Your task to perform on an android device: manage bookmarks in the chrome app Image 0: 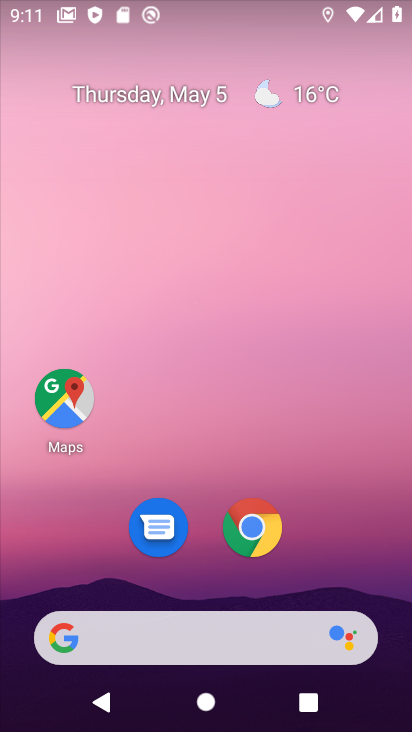
Step 0: click (259, 530)
Your task to perform on an android device: manage bookmarks in the chrome app Image 1: 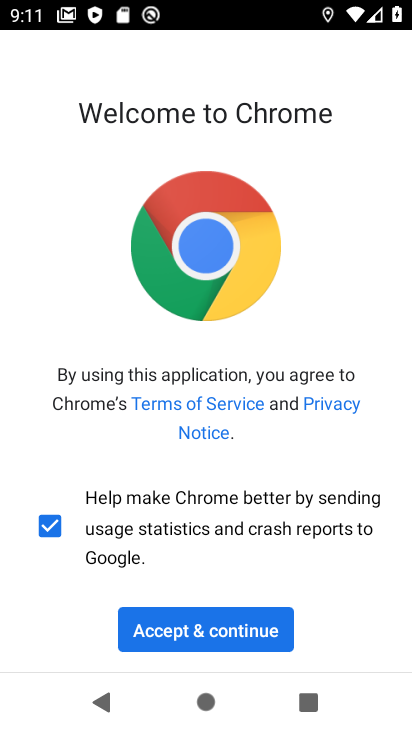
Step 1: click (233, 623)
Your task to perform on an android device: manage bookmarks in the chrome app Image 2: 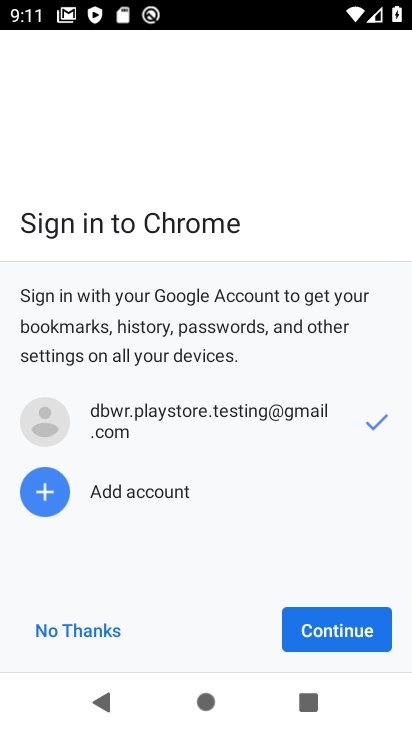
Step 2: click (357, 624)
Your task to perform on an android device: manage bookmarks in the chrome app Image 3: 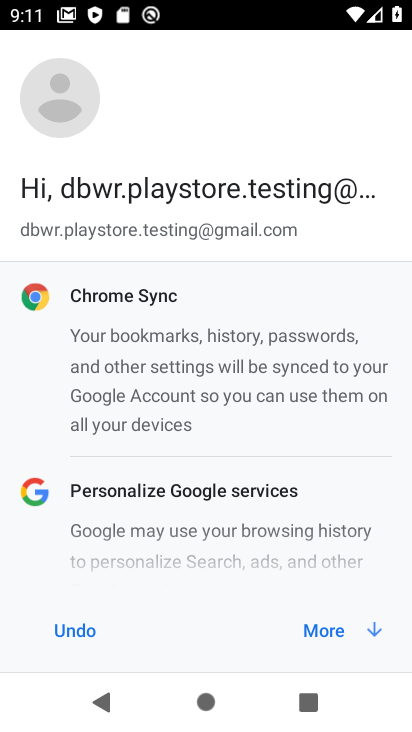
Step 3: click (356, 624)
Your task to perform on an android device: manage bookmarks in the chrome app Image 4: 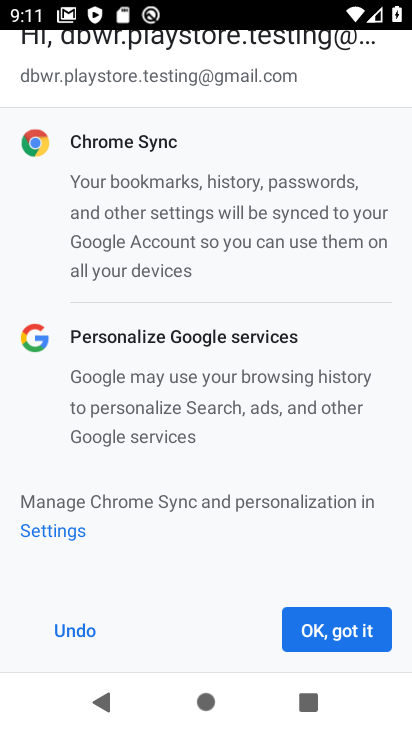
Step 4: click (356, 624)
Your task to perform on an android device: manage bookmarks in the chrome app Image 5: 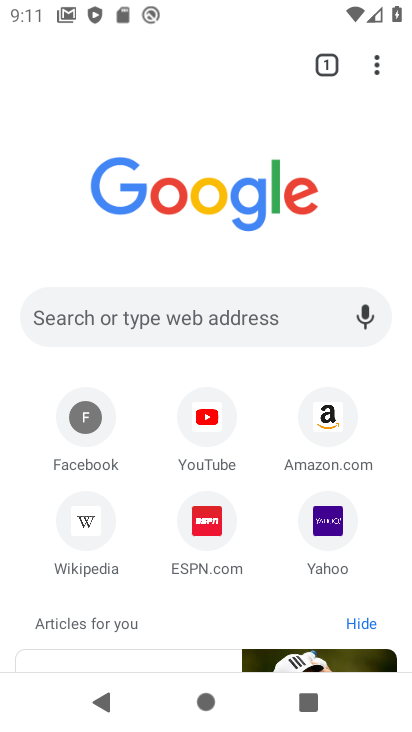
Step 5: drag from (368, 61) to (290, 232)
Your task to perform on an android device: manage bookmarks in the chrome app Image 6: 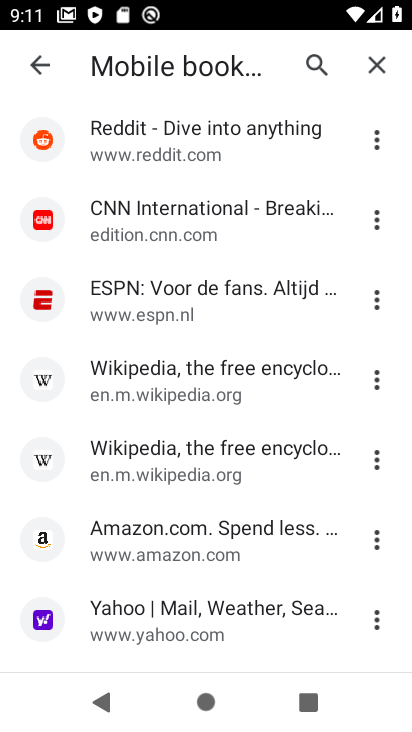
Step 6: drag from (191, 143) to (191, 229)
Your task to perform on an android device: manage bookmarks in the chrome app Image 7: 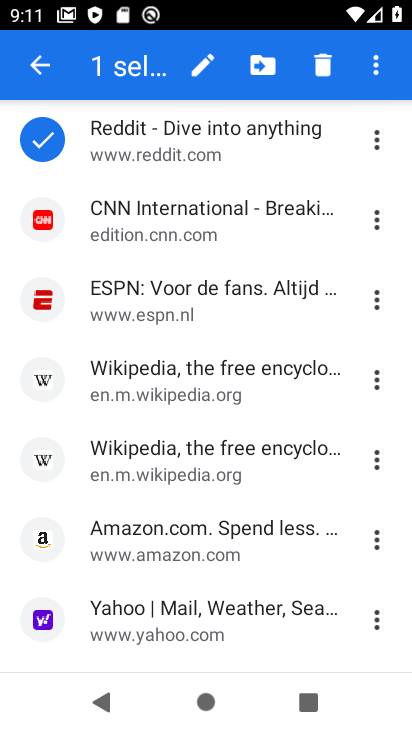
Step 7: click (191, 229)
Your task to perform on an android device: manage bookmarks in the chrome app Image 8: 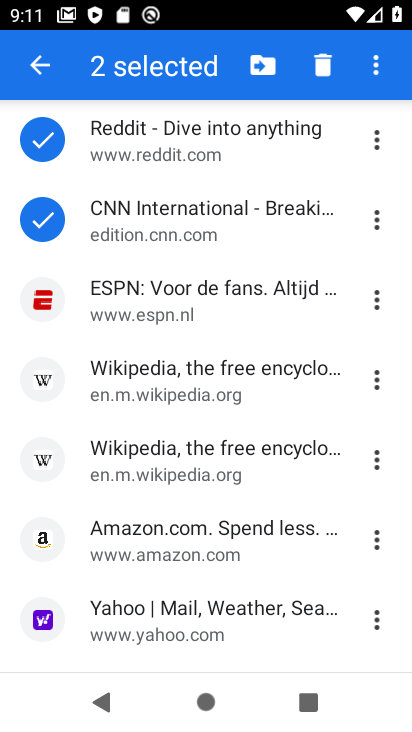
Step 8: click (208, 323)
Your task to perform on an android device: manage bookmarks in the chrome app Image 9: 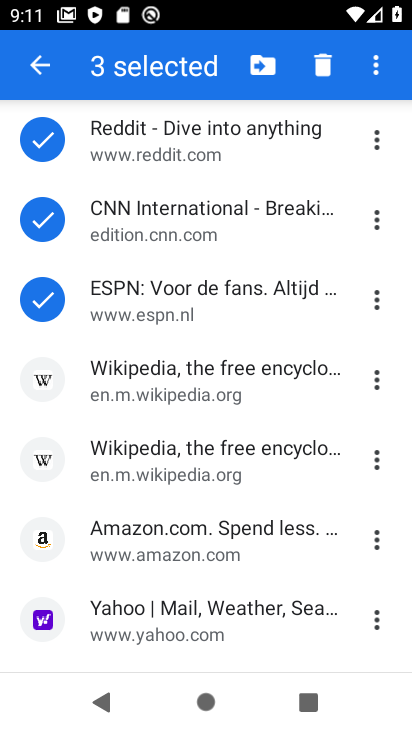
Step 9: click (191, 394)
Your task to perform on an android device: manage bookmarks in the chrome app Image 10: 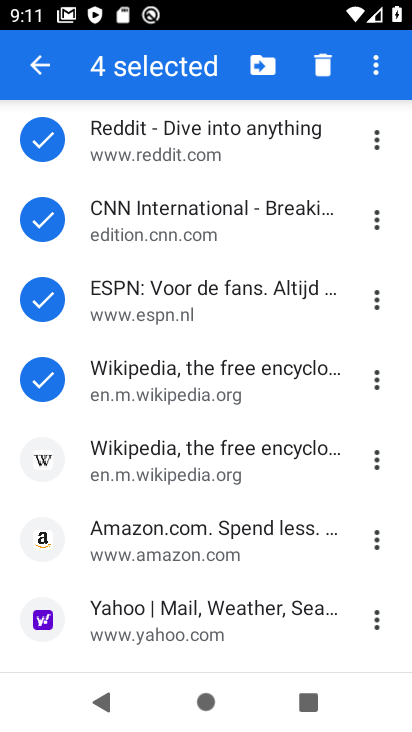
Step 10: click (194, 458)
Your task to perform on an android device: manage bookmarks in the chrome app Image 11: 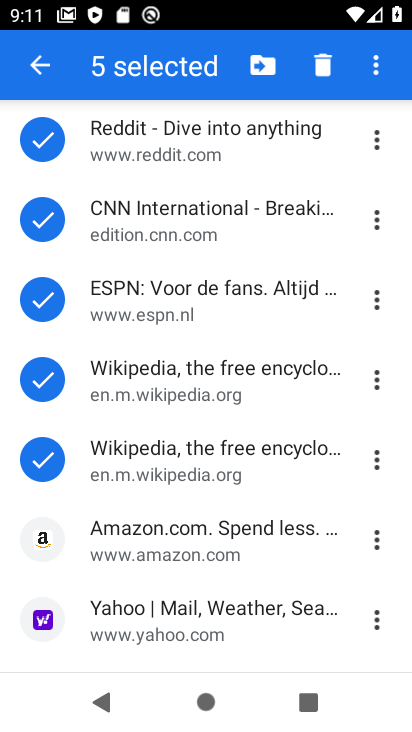
Step 11: click (179, 554)
Your task to perform on an android device: manage bookmarks in the chrome app Image 12: 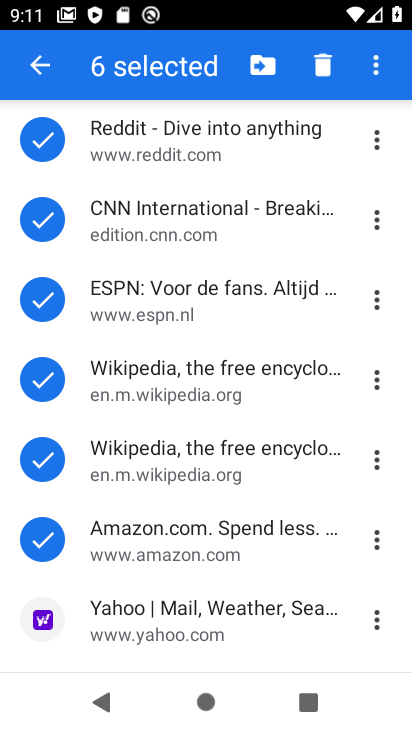
Step 12: click (171, 620)
Your task to perform on an android device: manage bookmarks in the chrome app Image 13: 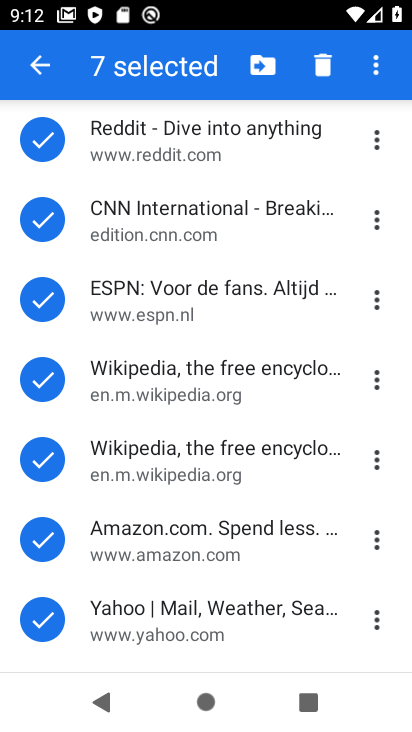
Step 13: drag from (145, 633) to (212, 269)
Your task to perform on an android device: manage bookmarks in the chrome app Image 14: 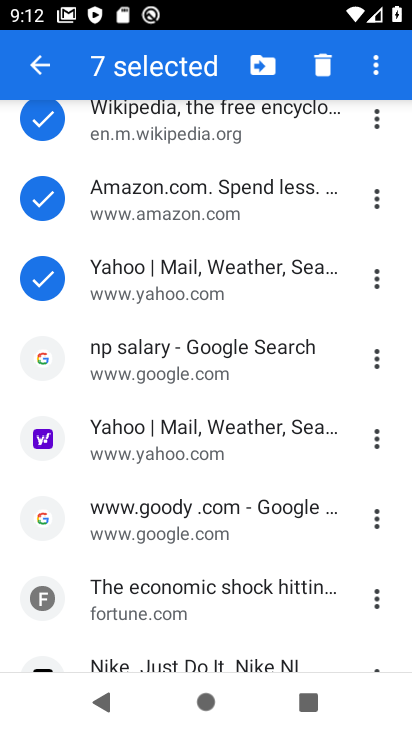
Step 14: click (155, 355)
Your task to perform on an android device: manage bookmarks in the chrome app Image 15: 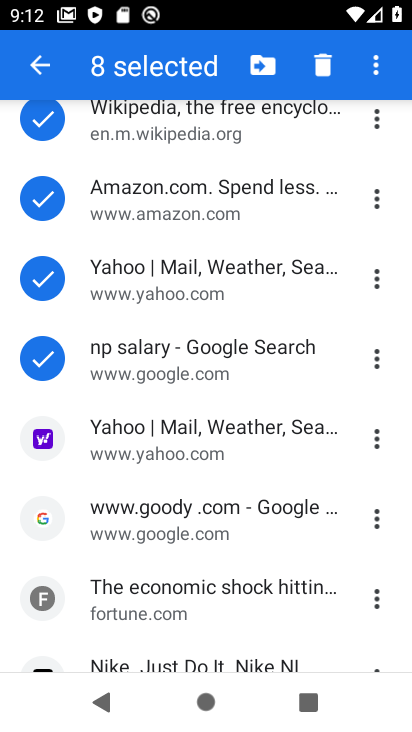
Step 15: click (159, 448)
Your task to perform on an android device: manage bookmarks in the chrome app Image 16: 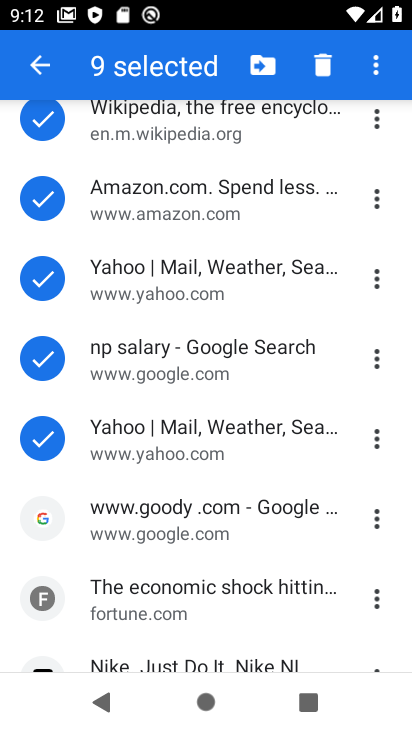
Step 16: click (155, 514)
Your task to perform on an android device: manage bookmarks in the chrome app Image 17: 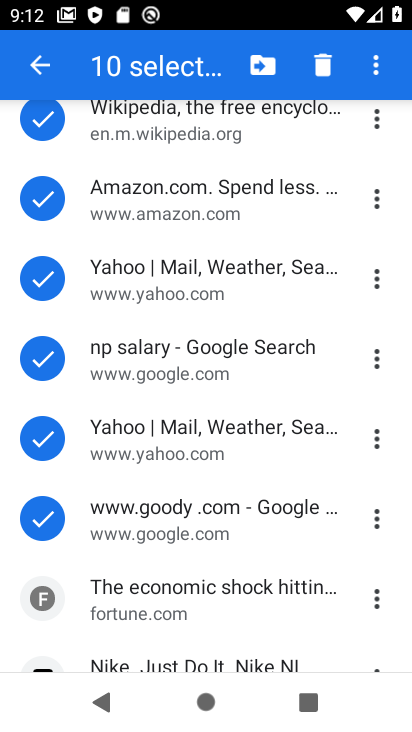
Step 17: click (144, 600)
Your task to perform on an android device: manage bookmarks in the chrome app Image 18: 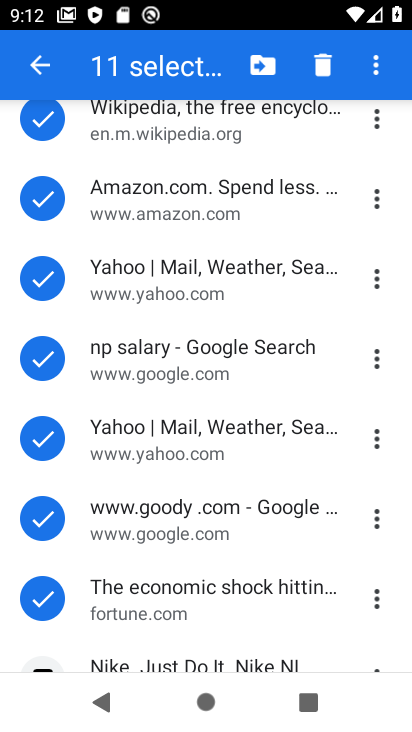
Step 18: drag from (128, 637) to (230, 129)
Your task to perform on an android device: manage bookmarks in the chrome app Image 19: 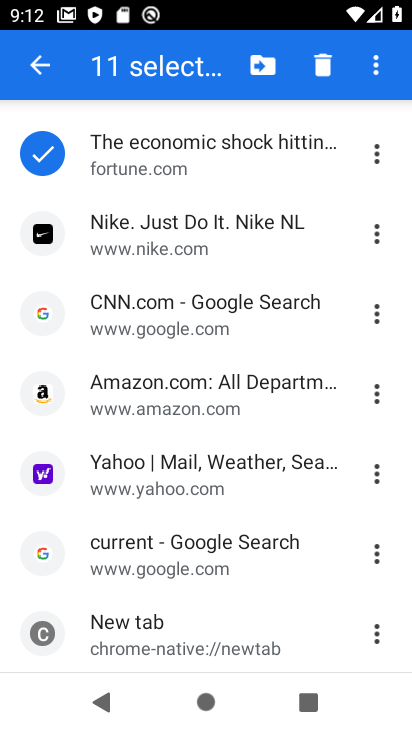
Step 19: click (152, 221)
Your task to perform on an android device: manage bookmarks in the chrome app Image 20: 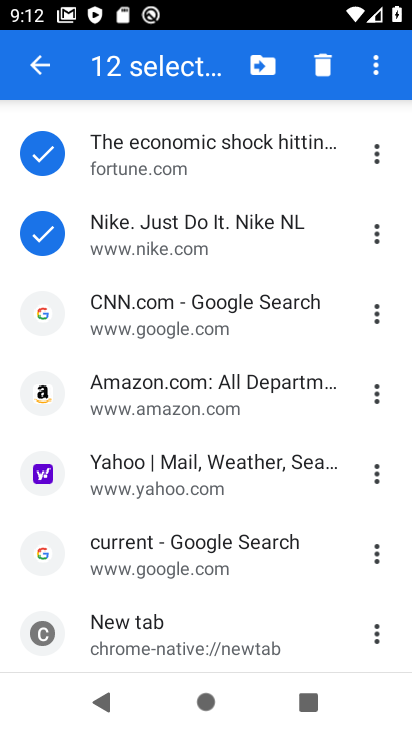
Step 20: click (165, 298)
Your task to perform on an android device: manage bookmarks in the chrome app Image 21: 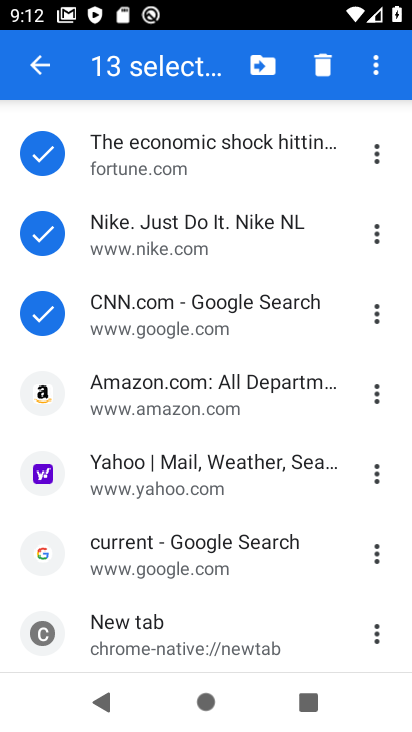
Step 21: click (167, 385)
Your task to perform on an android device: manage bookmarks in the chrome app Image 22: 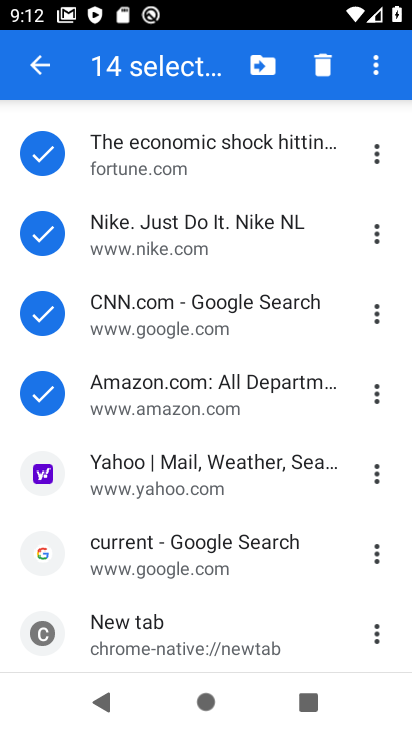
Step 22: click (169, 486)
Your task to perform on an android device: manage bookmarks in the chrome app Image 23: 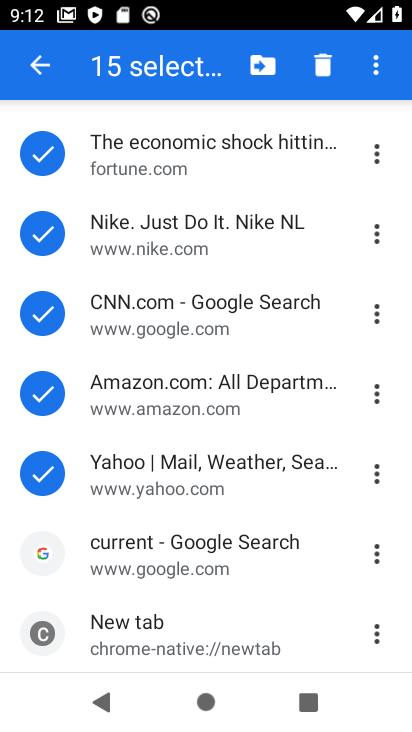
Step 23: click (149, 551)
Your task to perform on an android device: manage bookmarks in the chrome app Image 24: 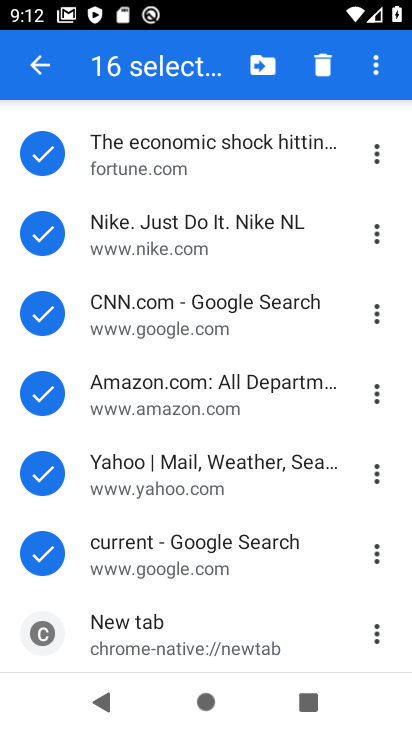
Step 24: click (127, 626)
Your task to perform on an android device: manage bookmarks in the chrome app Image 25: 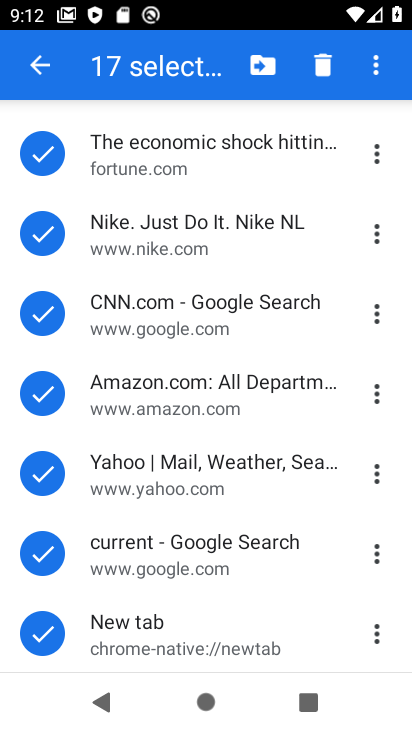
Step 25: drag from (131, 633) to (220, 60)
Your task to perform on an android device: manage bookmarks in the chrome app Image 26: 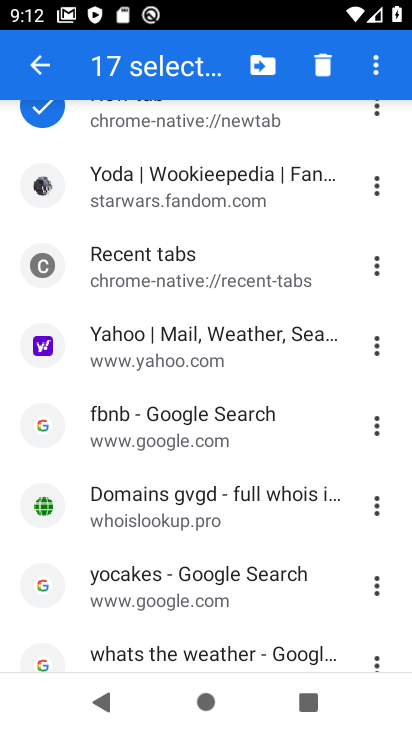
Step 26: click (184, 185)
Your task to perform on an android device: manage bookmarks in the chrome app Image 27: 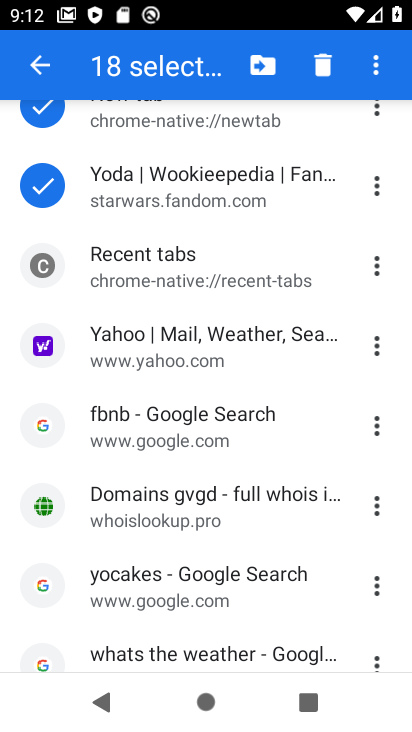
Step 27: click (173, 248)
Your task to perform on an android device: manage bookmarks in the chrome app Image 28: 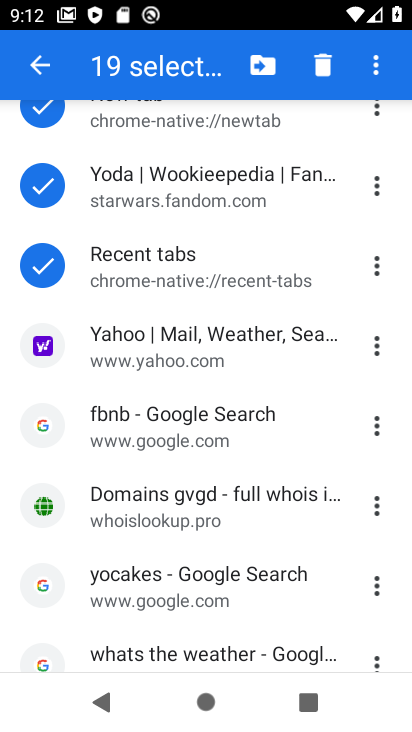
Step 28: click (140, 335)
Your task to perform on an android device: manage bookmarks in the chrome app Image 29: 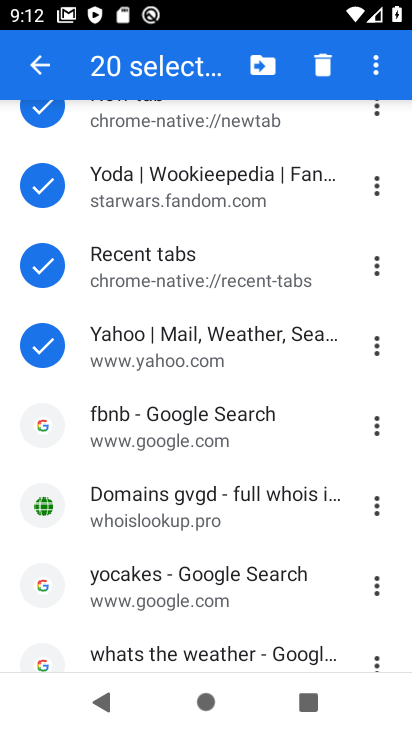
Step 29: click (149, 420)
Your task to perform on an android device: manage bookmarks in the chrome app Image 30: 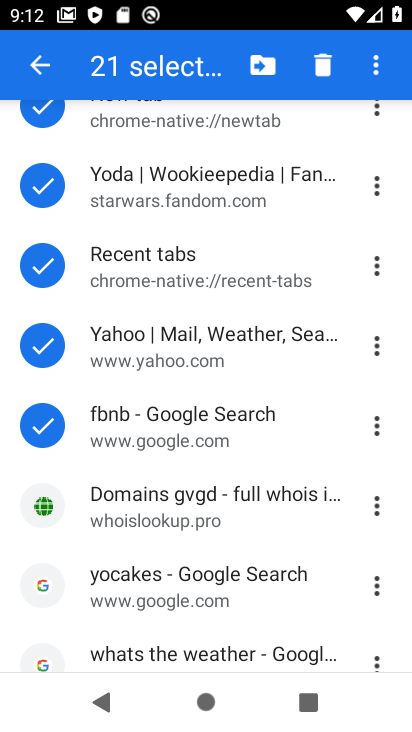
Step 30: click (169, 491)
Your task to perform on an android device: manage bookmarks in the chrome app Image 31: 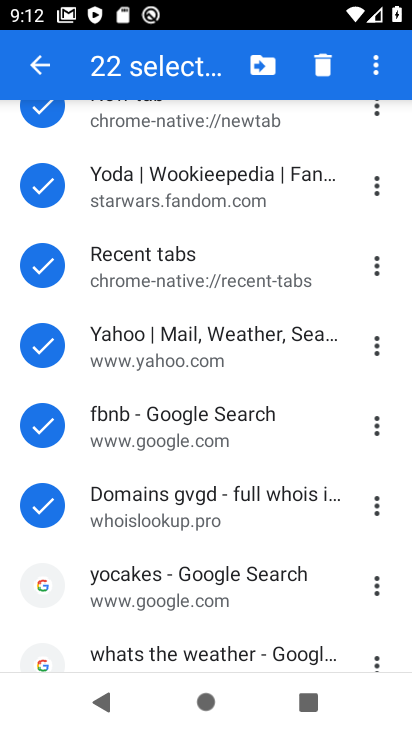
Step 31: click (140, 572)
Your task to perform on an android device: manage bookmarks in the chrome app Image 32: 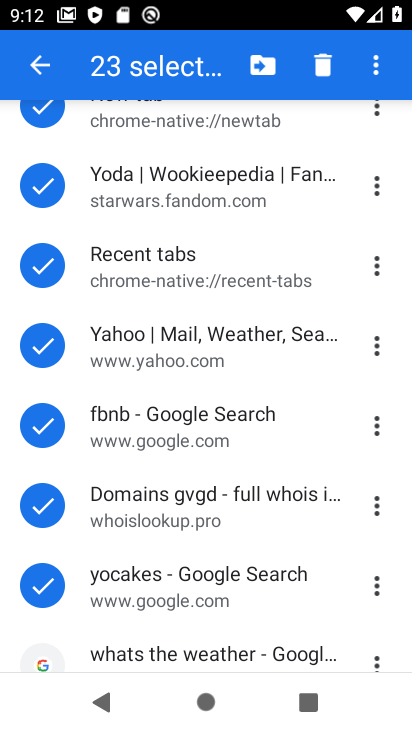
Step 32: click (104, 667)
Your task to perform on an android device: manage bookmarks in the chrome app Image 33: 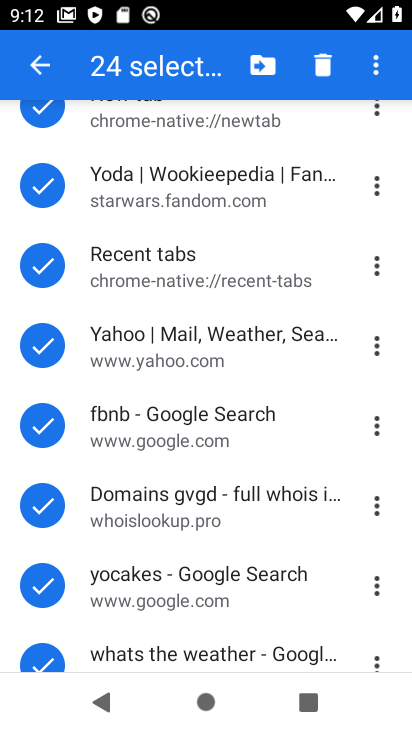
Step 33: drag from (136, 646) to (216, 5)
Your task to perform on an android device: manage bookmarks in the chrome app Image 34: 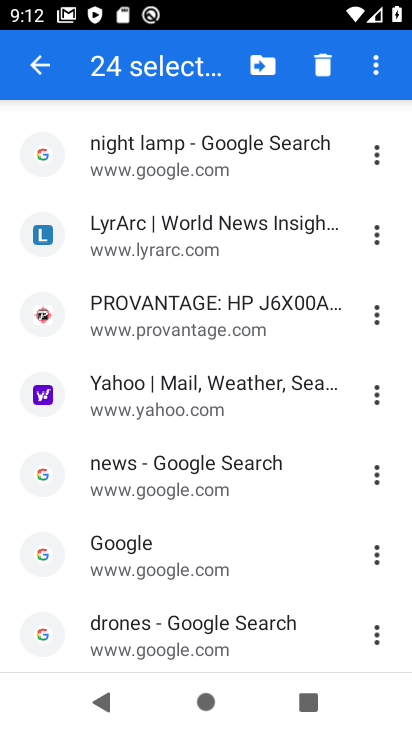
Step 34: click (183, 149)
Your task to perform on an android device: manage bookmarks in the chrome app Image 35: 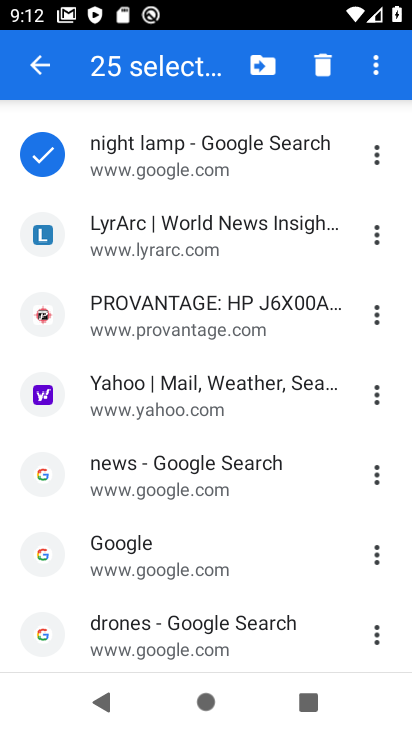
Step 35: click (157, 223)
Your task to perform on an android device: manage bookmarks in the chrome app Image 36: 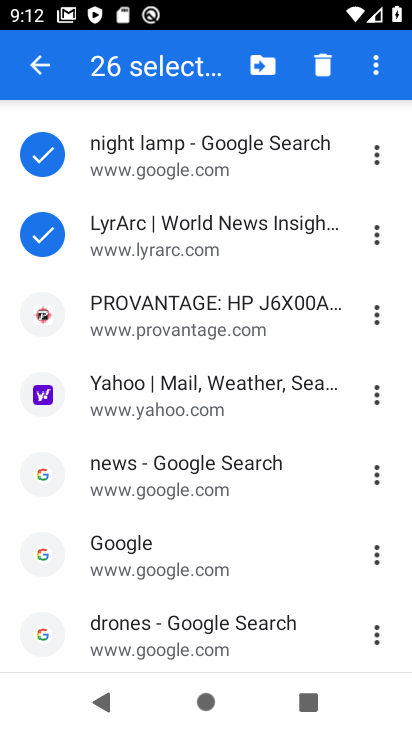
Step 36: click (163, 305)
Your task to perform on an android device: manage bookmarks in the chrome app Image 37: 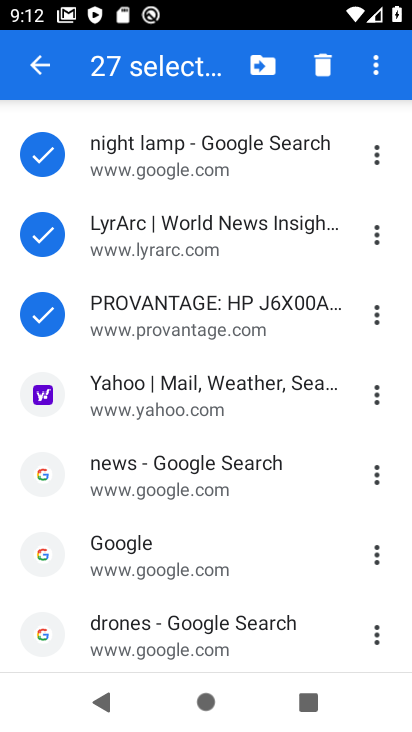
Step 37: click (155, 403)
Your task to perform on an android device: manage bookmarks in the chrome app Image 38: 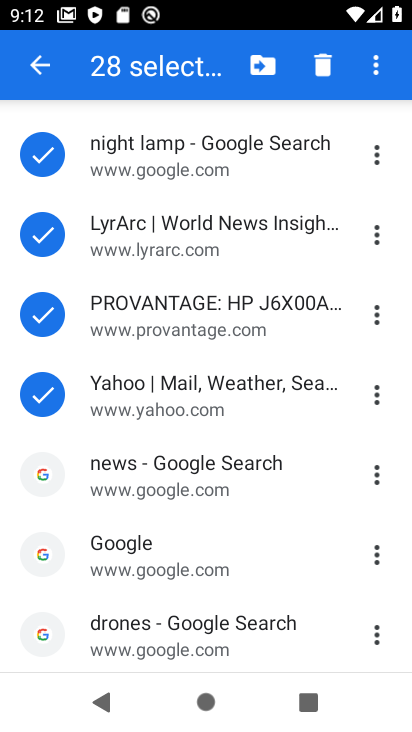
Step 38: drag from (152, 435) to (173, 366)
Your task to perform on an android device: manage bookmarks in the chrome app Image 39: 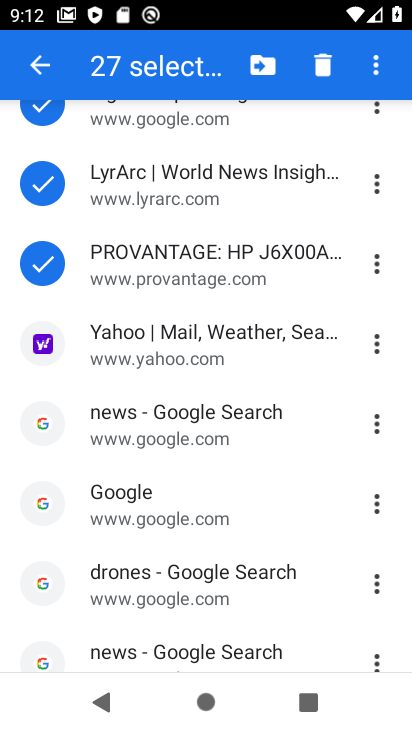
Step 39: click (171, 335)
Your task to perform on an android device: manage bookmarks in the chrome app Image 40: 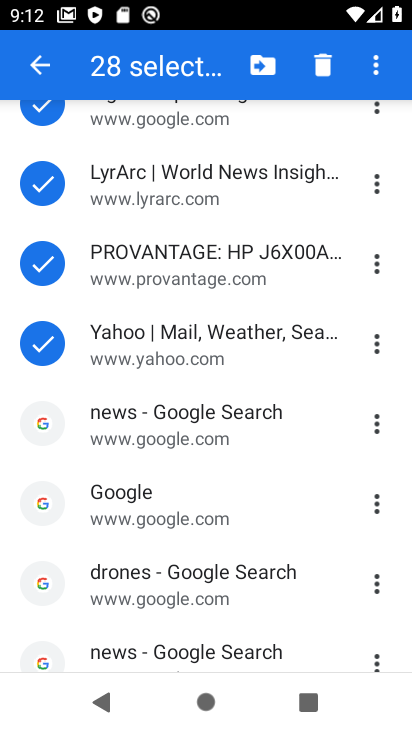
Step 40: click (146, 423)
Your task to perform on an android device: manage bookmarks in the chrome app Image 41: 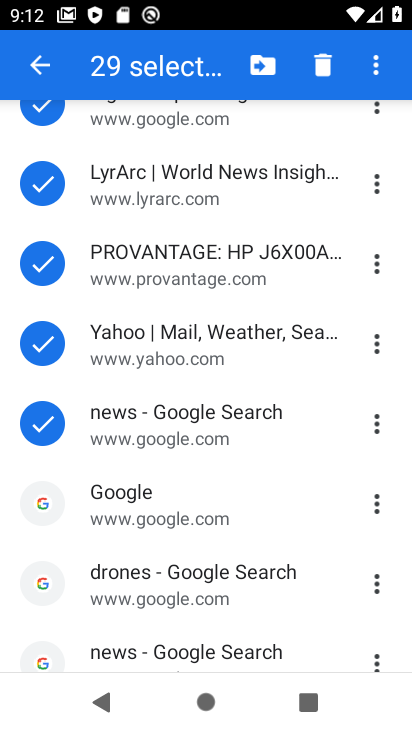
Step 41: click (138, 499)
Your task to perform on an android device: manage bookmarks in the chrome app Image 42: 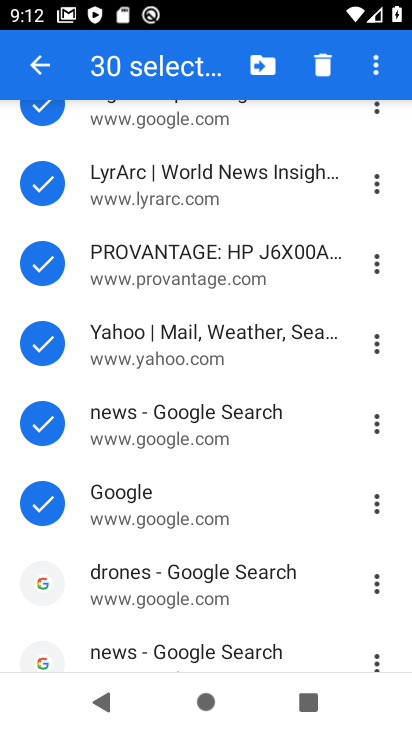
Step 42: drag from (154, 522) to (247, 11)
Your task to perform on an android device: manage bookmarks in the chrome app Image 43: 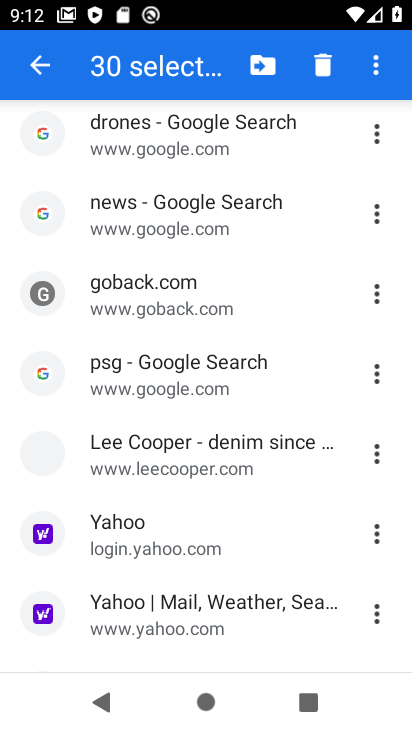
Step 43: drag from (164, 571) to (271, 46)
Your task to perform on an android device: manage bookmarks in the chrome app Image 44: 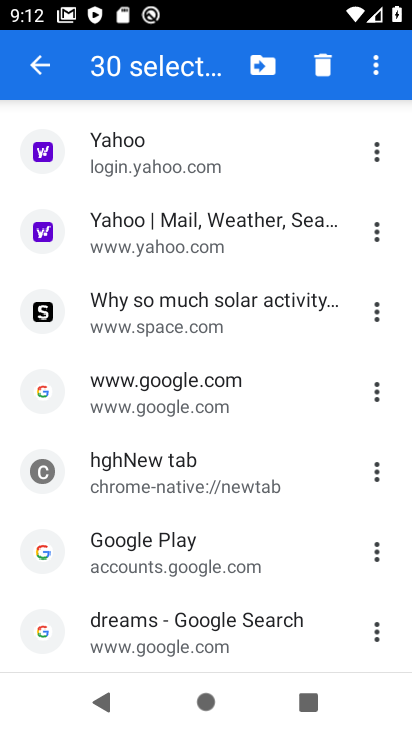
Step 44: drag from (194, 645) to (254, 47)
Your task to perform on an android device: manage bookmarks in the chrome app Image 45: 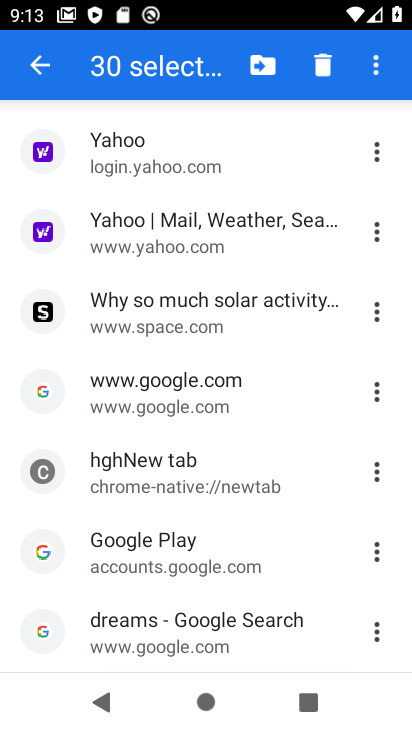
Step 45: click (183, 608)
Your task to perform on an android device: manage bookmarks in the chrome app Image 46: 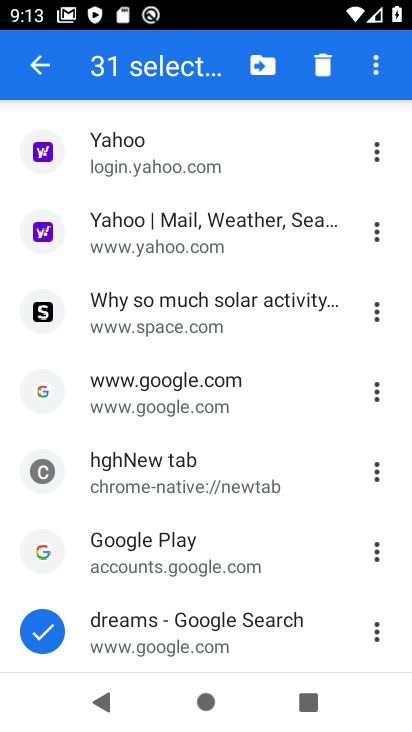
Step 46: drag from (182, 590) to (189, 553)
Your task to perform on an android device: manage bookmarks in the chrome app Image 47: 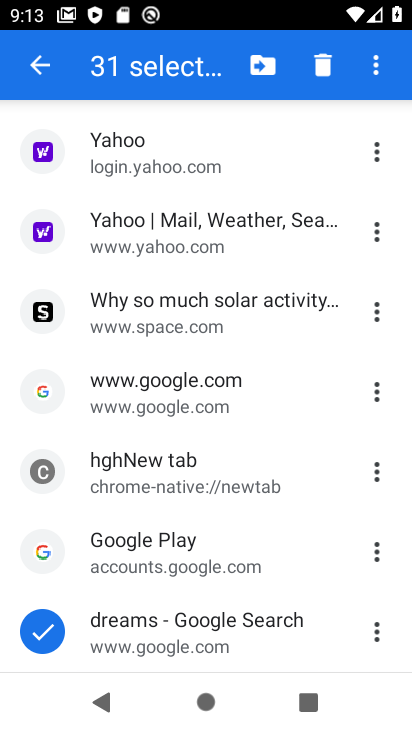
Step 47: click (184, 539)
Your task to perform on an android device: manage bookmarks in the chrome app Image 48: 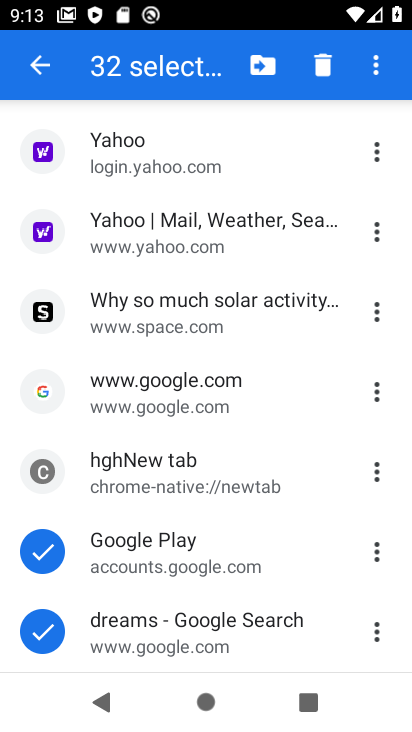
Step 48: click (163, 464)
Your task to perform on an android device: manage bookmarks in the chrome app Image 49: 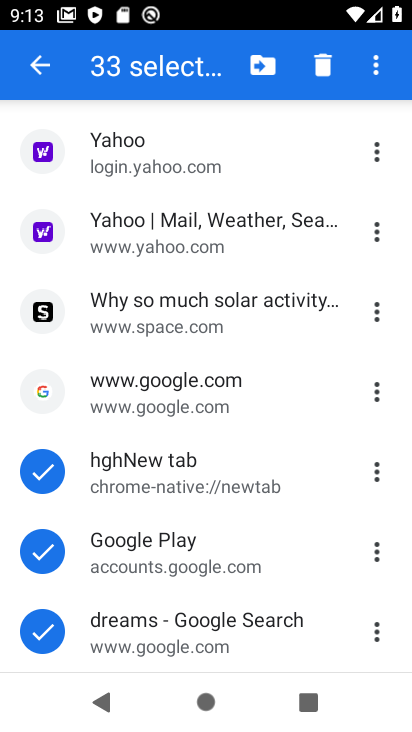
Step 49: click (164, 405)
Your task to perform on an android device: manage bookmarks in the chrome app Image 50: 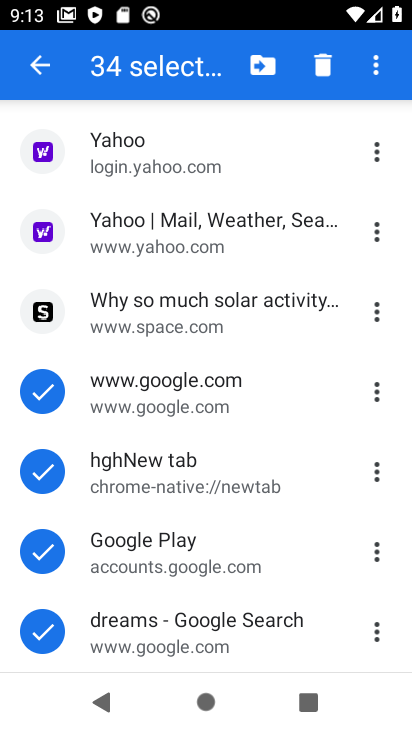
Step 50: click (154, 307)
Your task to perform on an android device: manage bookmarks in the chrome app Image 51: 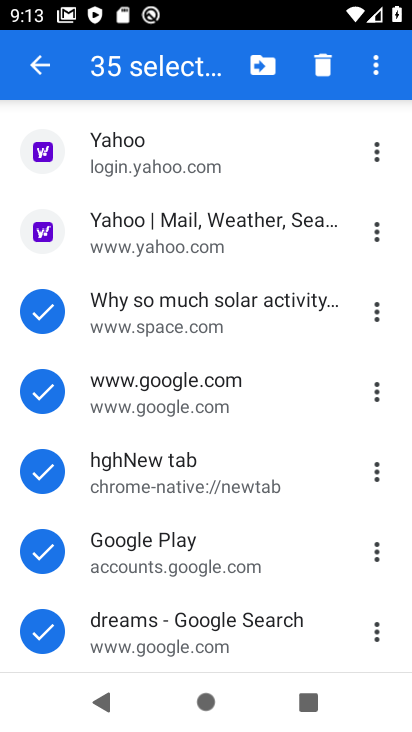
Step 51: drag from (154, 308) to (129, 677)
Your task to perform on an android device: manage bookmarks in the chrome app Image 52: 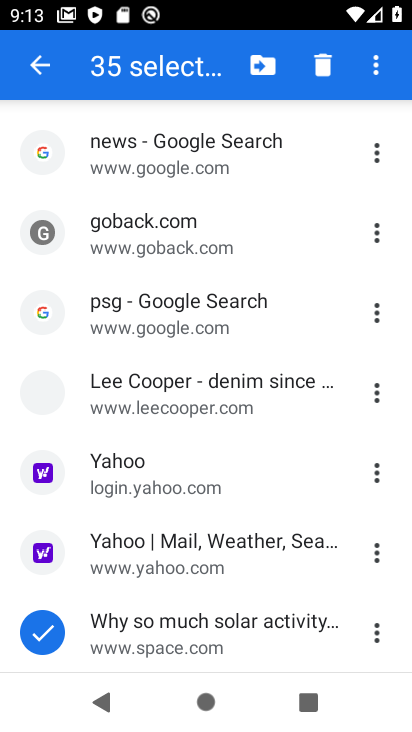
Step 52: click (144, 537)
Your task to perform on an android device: manage bookmarks in the chrome app Image 53: 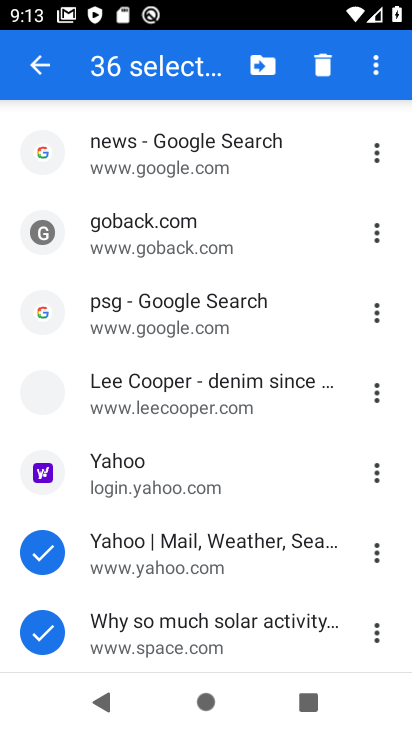
Step 53: click (144, 499)
Your task to perform on an android device: manage bookmarks in the chrome app Image 54: 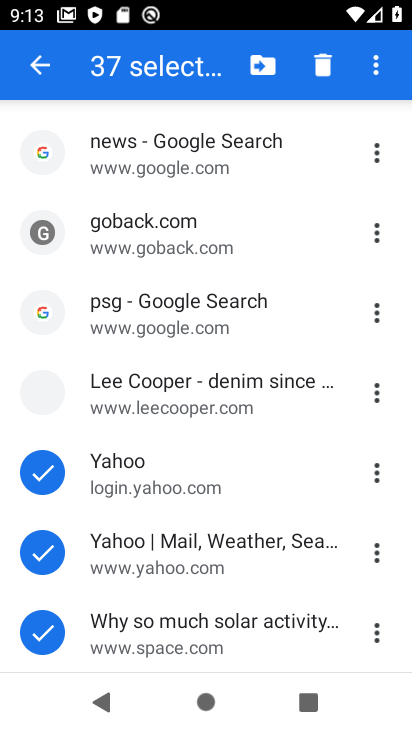
Step 54: click (171, 394)
Your task to perform on an android device: manage bookmarks in the chrome app Image 55: 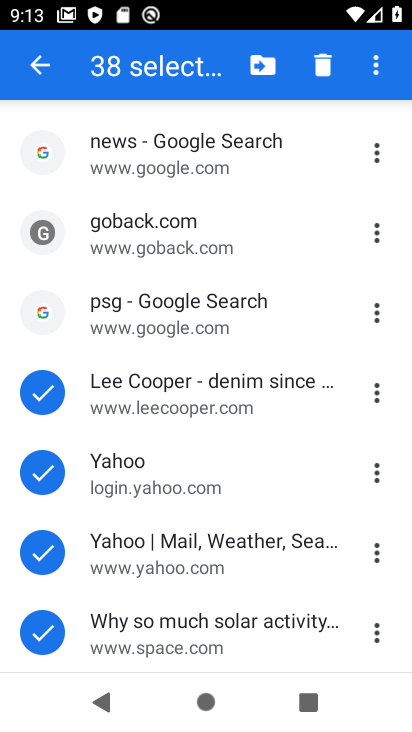
Step 55: click (182, 297)
Your task to perform on an android device: manage bookmarks in the chrome app Image 56: 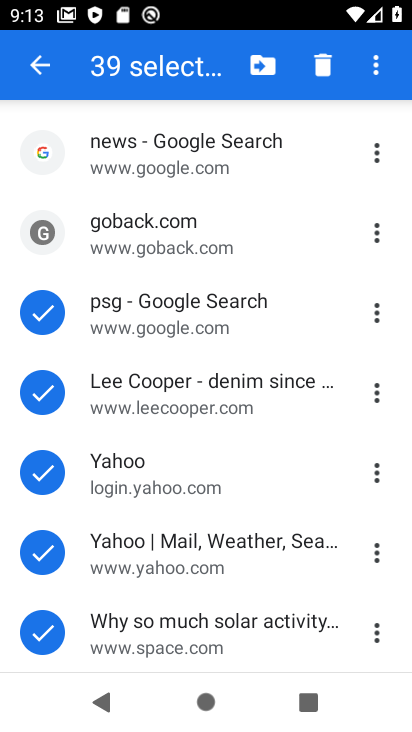
Step 56: drag from (275, 234) to (273, 638)
Your task to perform on an android device: manage bookmarks in the chrome app Image 57: 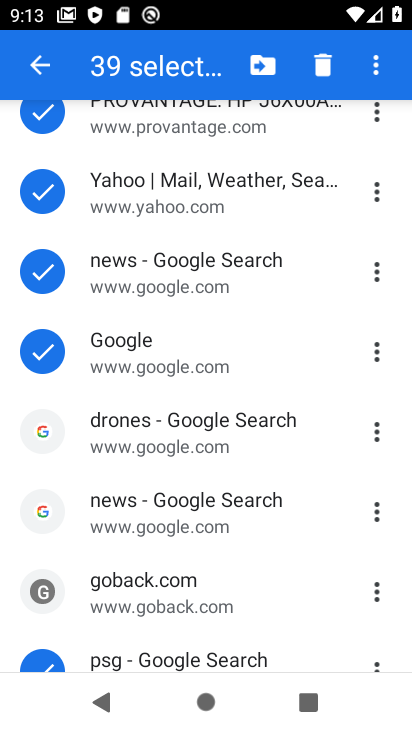
Step 57: click (228, 438)
Your task to perform on an android device: manage bookmarks in the chrome app Image 58: 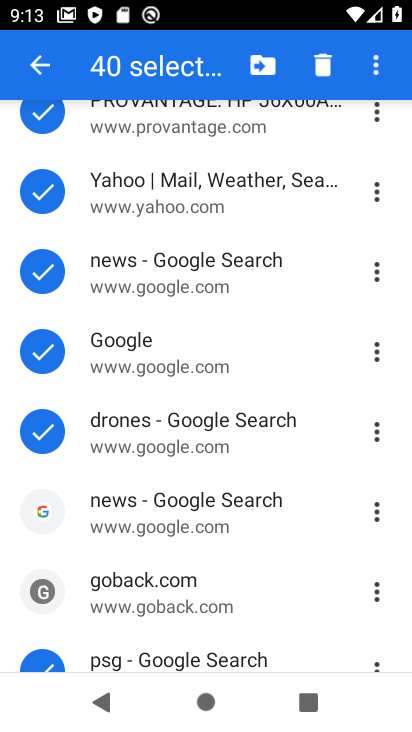
Step 58: click (212, 519)
Your task to perform on an android device: manage bookmarks in the chrome app Image 59: 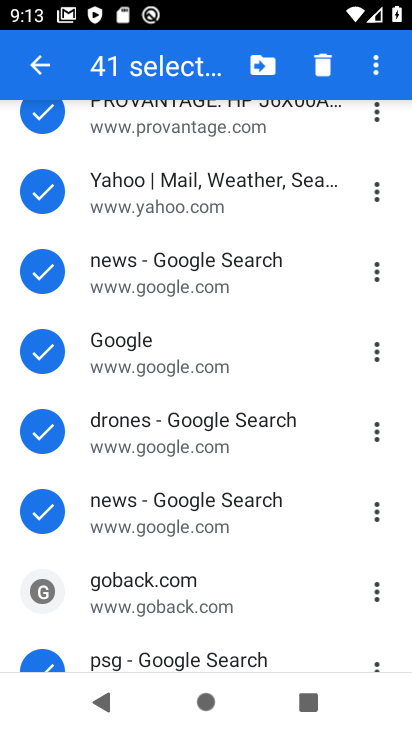
Step 59: click (165, 601)
Your task to perform on an android device: manage bookmarks in the chrome app Image 60: 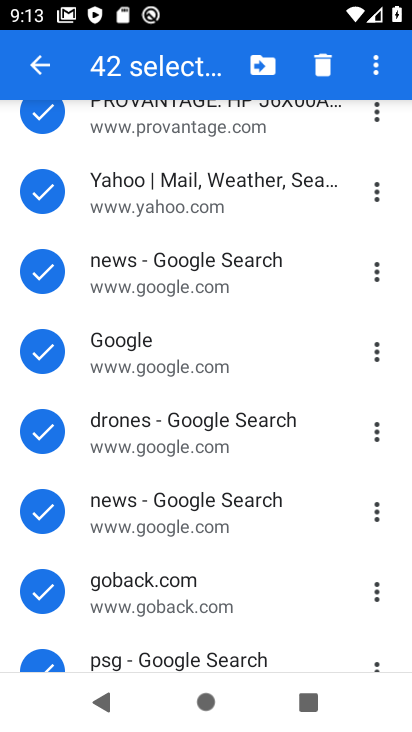
Step 60: click (269, 74)
Your task to perform on an android device: manage bookmarks in the chrome app Image 61: 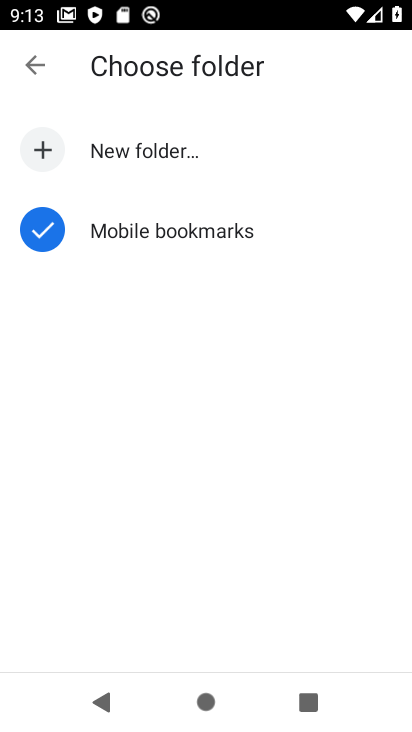
Step 61: click (194, 151)
Your task to perform on an android device: manage bookmarks in the chrome app Image 62: 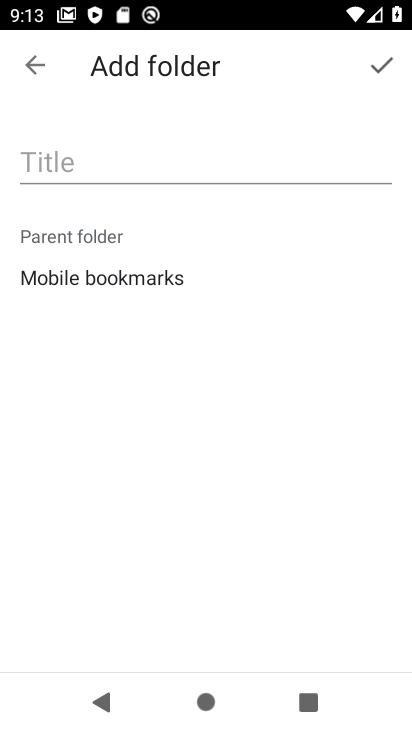
Step 62: click (110, 149)
Your task to perform on an android device: manage bookmarks in the chrome app Image 63: 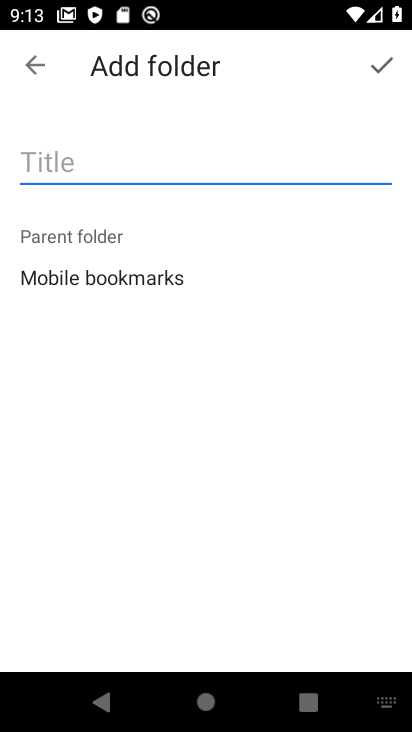
Step 63: type "YOYOYO"
Your task to perform on an android device: manage bookmarks in the chrome app Image 64: 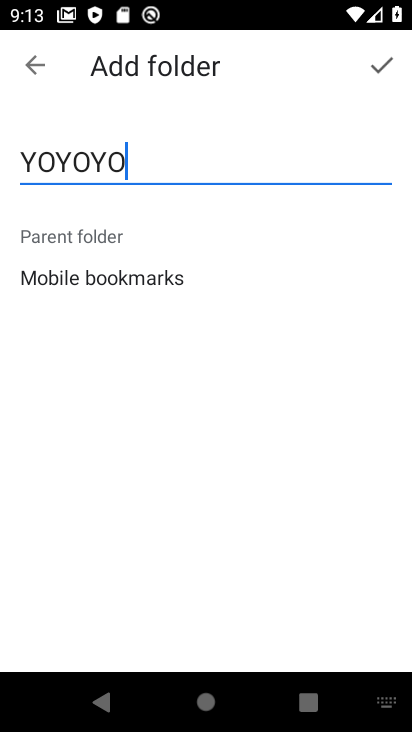
Step 64: click (387, 69)
Your task to perform on an android device: manage bookmarks in the chrome app Image 65: 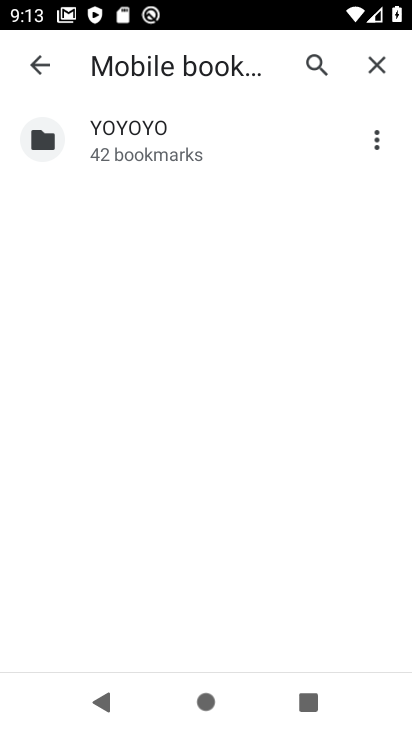
Step 65: task complete